Your task to perform on an android device: turn on the 24-hour format for clock Image 0: 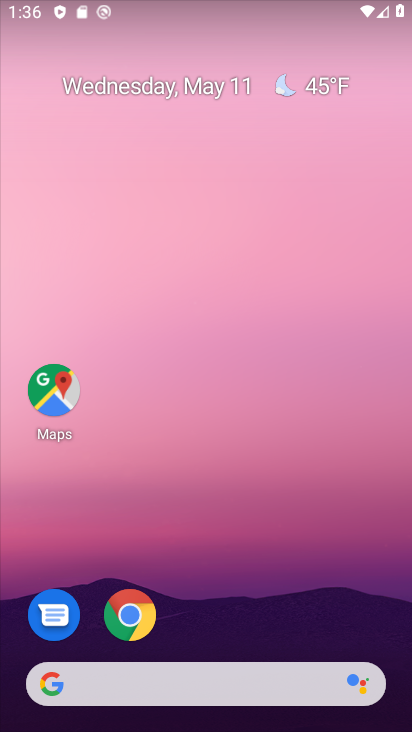
Step 0: drag from (384, 604) to (371, 245)
Your task to perform on an android device: turn on the 24-hour format for clock Image 1: 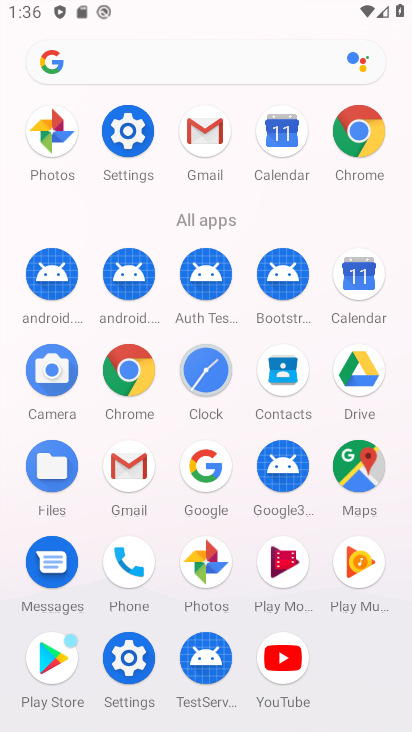
Step 1: click (206, 373)
Your task to perform on an android device: turn on the 24-hour format for clock Image 2: 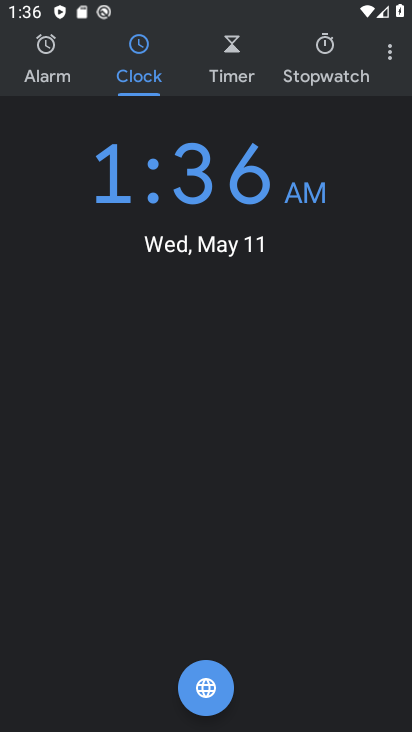
Step 2: drag from (386, 70) to (313, 105)
Your task to perform on an android device: turn on the 24-hour format for clock Image 3: 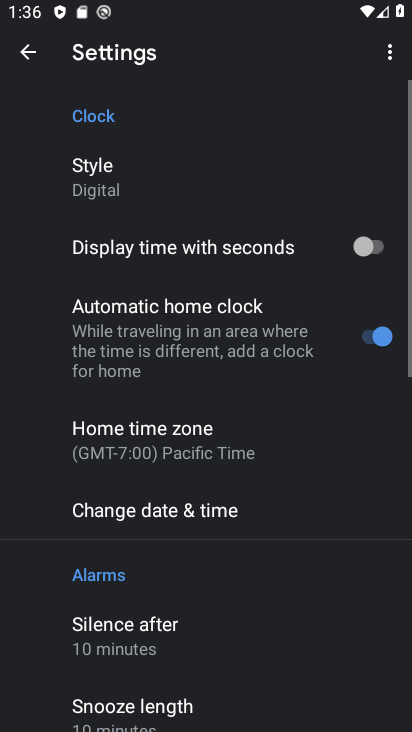
Step 3: drag from (236, 603) to (251, 235)
Your task to perform on an android device: turn on the 24-hour format for clock Image 4: 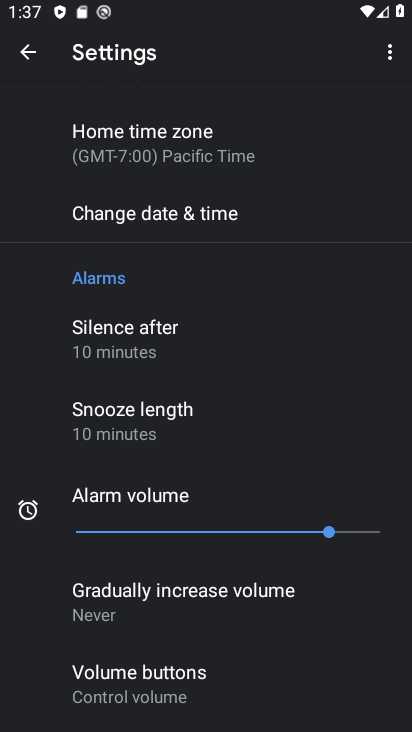
Step 4: click (242, 226)
Your task to perform on an android device: turn on the 24-hour format for clock Image 5: 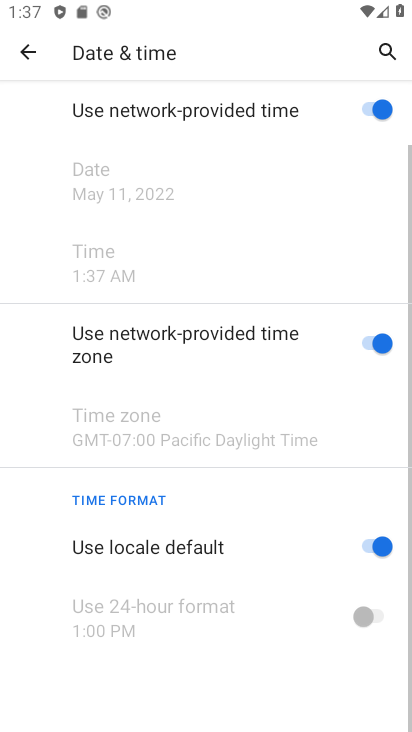
Step 5: drag from (211, 645) to (221, 266)
Your task to perform on an android device: turn on the 24-hour format for clock Image 6: 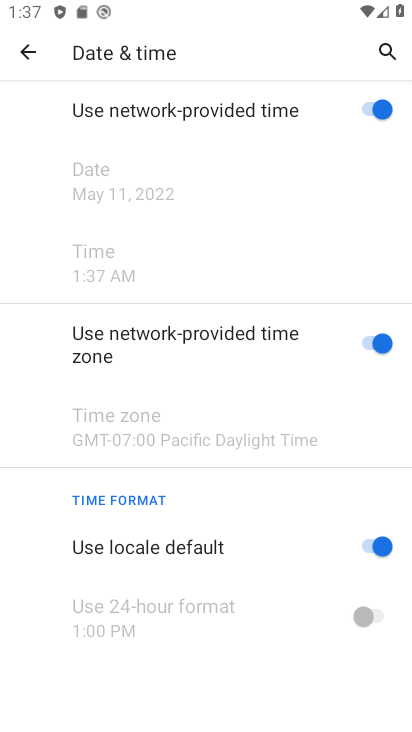
Step 6: click (373, 544)
Your task to perform on an android device: turn on the 24-hour format for clock Image 7: 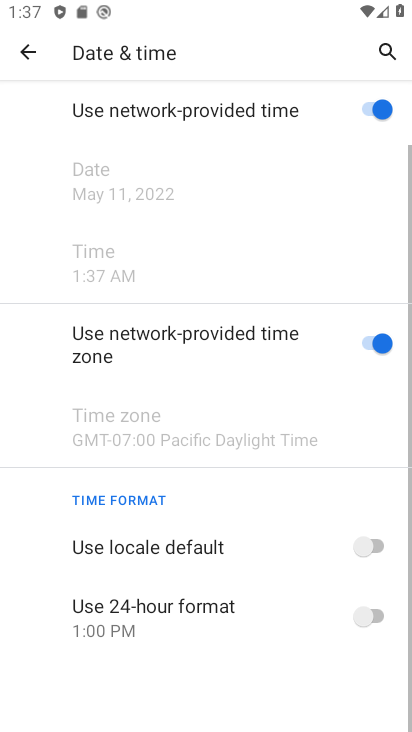
Step 7: click (379, 616)
Your task to perform on an android device: turn on the 24-hour format for clock Image 8: 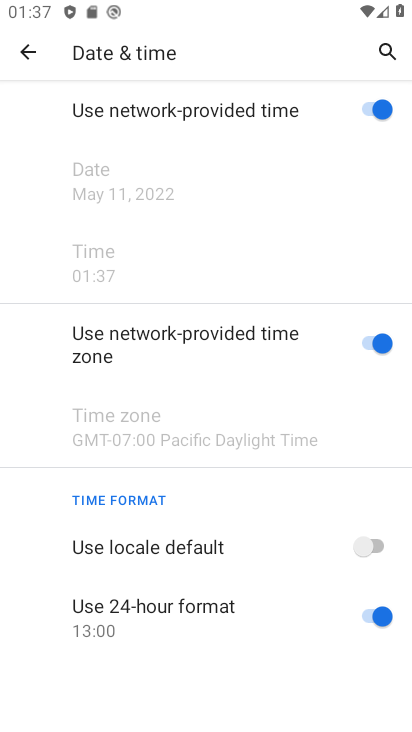
Step 8: task complete